Your task to perform on an android device: Find coffee shops on Maps Image 0: 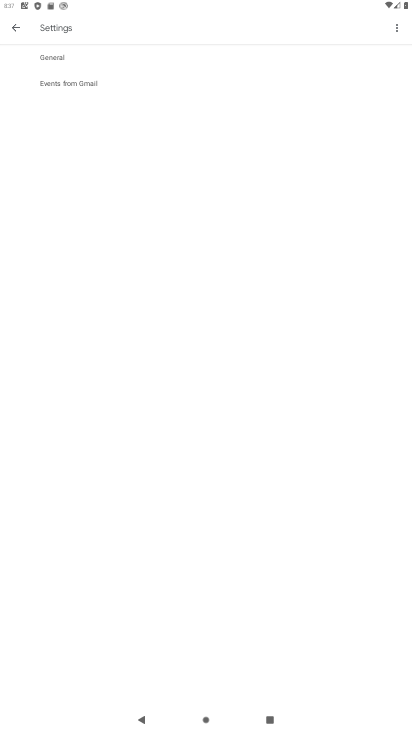
Step 0: press home button
Your task to perform on an android device: Find coffee shops on Maps Image 1: 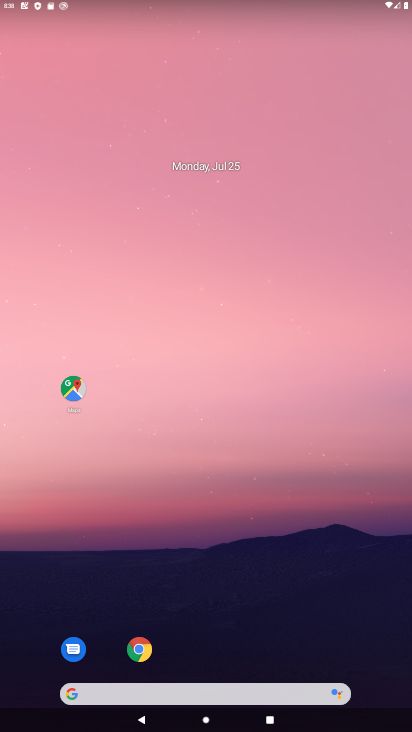
Step 1: click (76, 396)
Your task to perform on an android device: Find coffee shops on Maps Image 2: 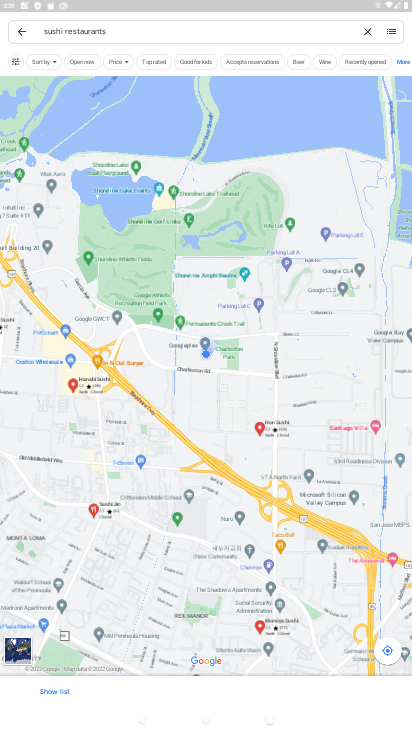
Step 2: click (365, 26)
Your task to perform on an android device: Find coffee shops on Maps Image 3: 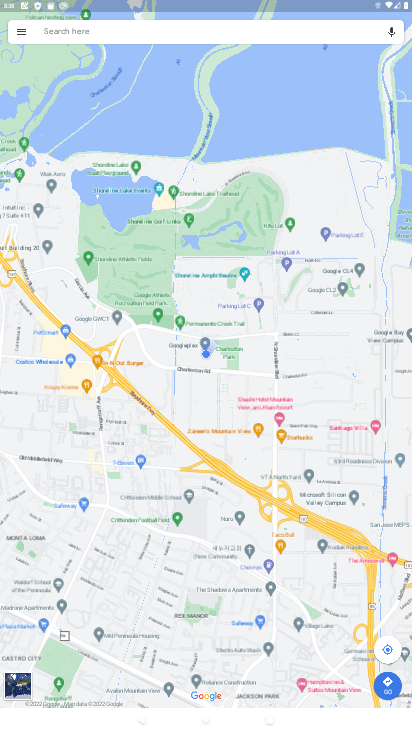
Step 3: click (265, 35)
Your task to perform on an android device: Find coffee shops on Maps Image 4: 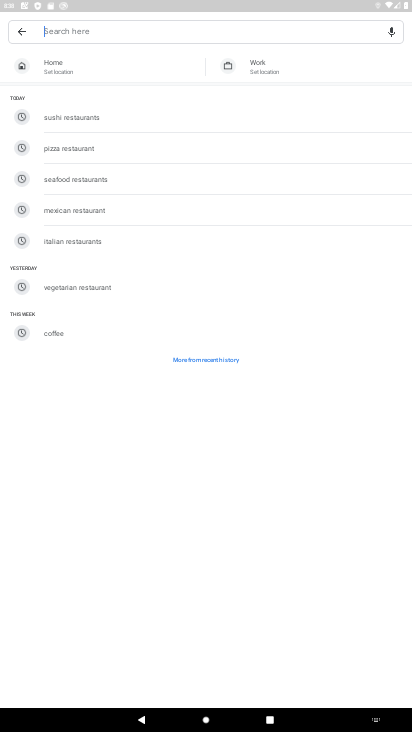
Step 4: click (21, 326)
Your task to perform on an android device: Find coffee shops on Maps Image 5: 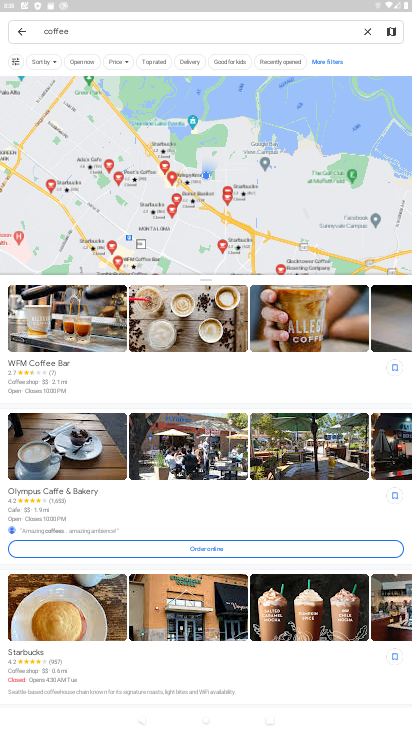
Step 5: task complete